Your task to perform on an android device: turn on priority inbox in the gmail app Image 0: 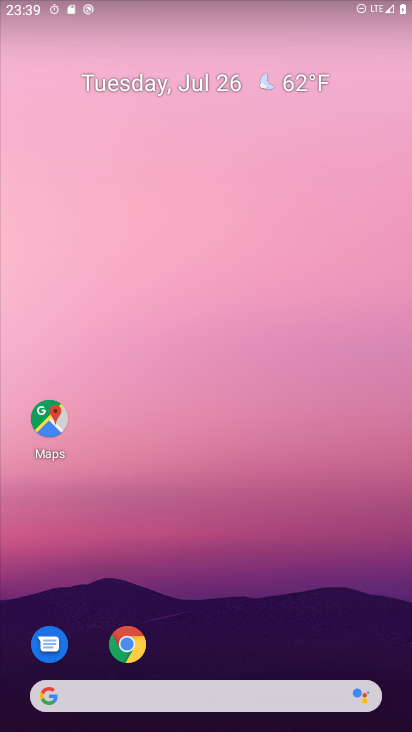
Step 0: drag from (235, 611) to (226, 2)
Your task to perform on an android device: turn on priority inbox in the gmail app Image 1: 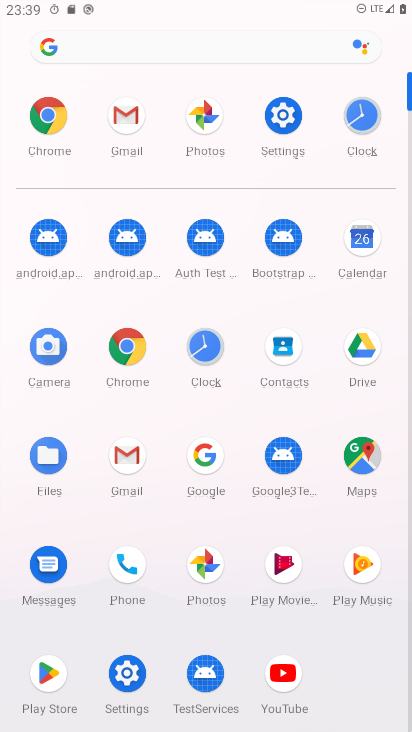
Step 1: click (122, 160)
Your task to perform on an android device: turn on priority inbox in the gmail app Image 2: 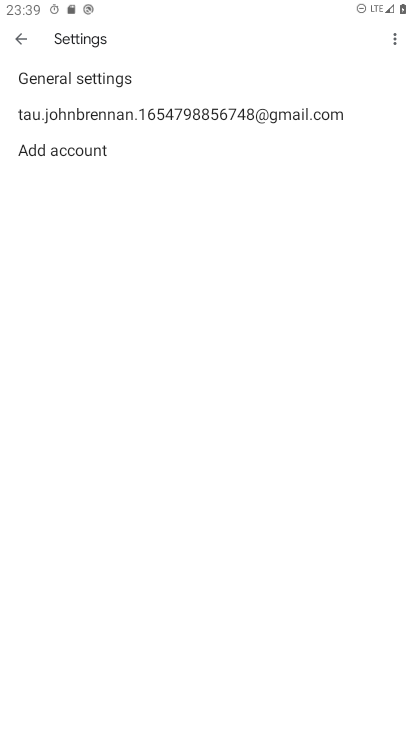
Step 2: click (64, 116)
Your task to perform on an android device: turn on priority inbox in the gmail app Image 3: 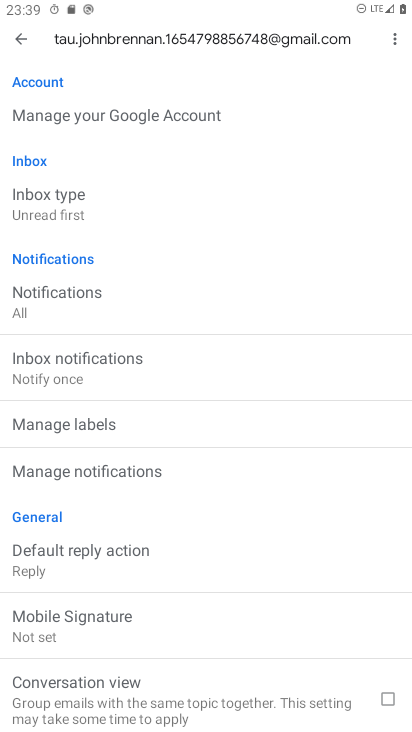
Step 3: click (39, 203)
Your task to perform on an android device: turn on priority inbox in the gmail app Image 4: 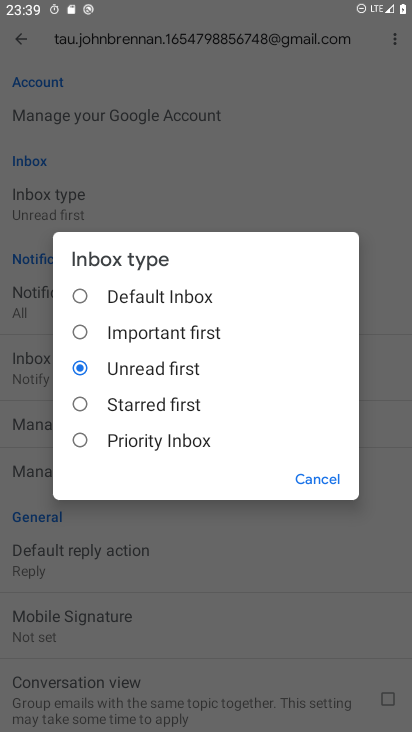
Step 4: click (84, 446)
Your task to perform on an android device: turn on priority inbox in the gmail app Image 5: 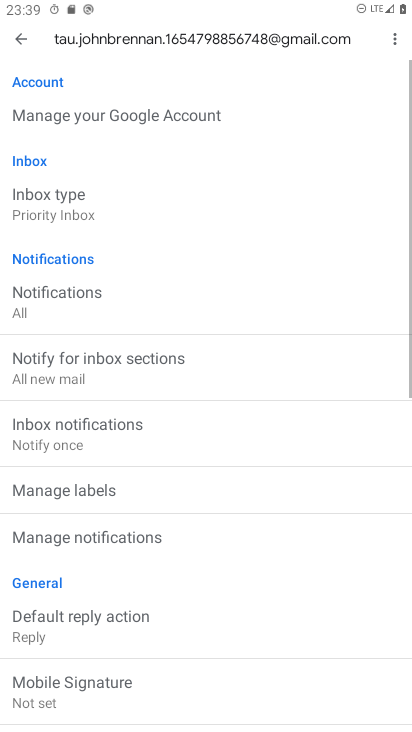
Step 5: task complete